Your task to perform on an android device: open a bookmark in the chrome app Image 0: 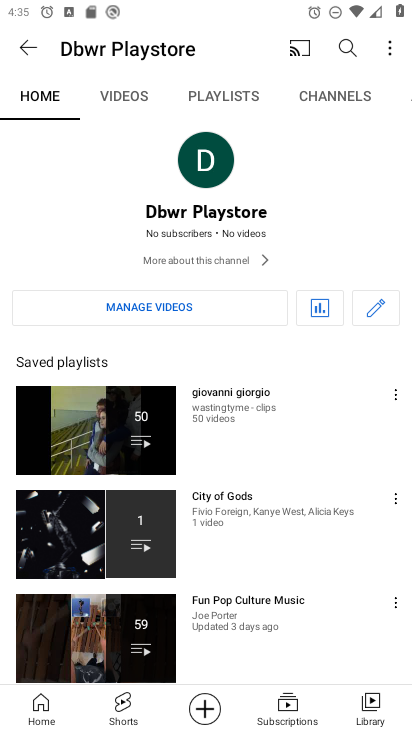
Step 0: press home button
Your task to perform on an android device: open a bookmark in the chrome app Image 1: 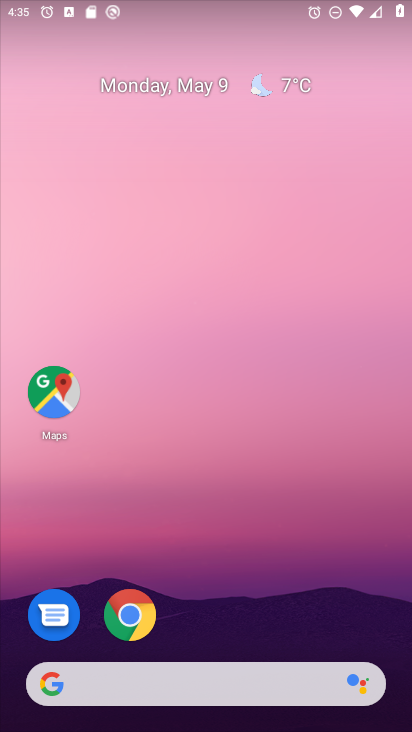
Step 1: click (129, 613)
Your task to perform on an android device: open a bookmark in the chrome app Image 2: 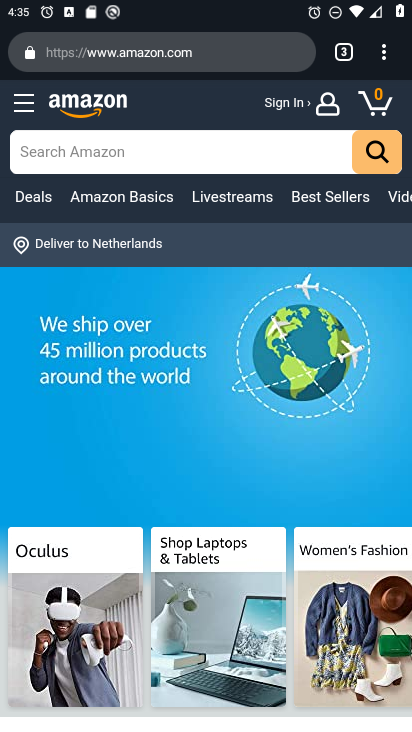
Step 2: click (381, 57)
Your task to perform on an android device: open a bookmark in the chrome app Image 3: 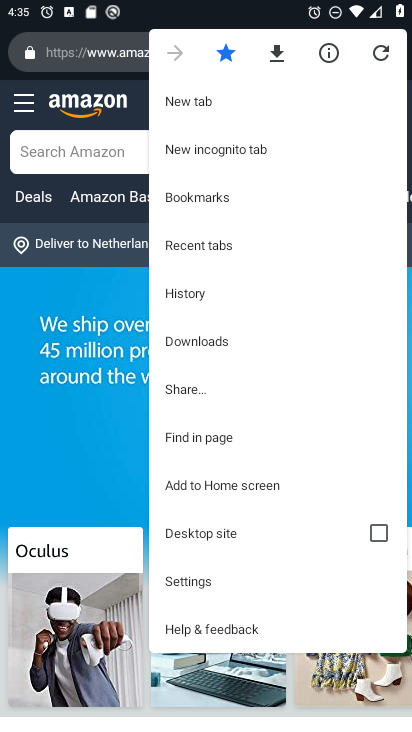
Step 3: click (187, 195)
Your task to perform on an android device: open a bookmark in the chrome app Image 4: 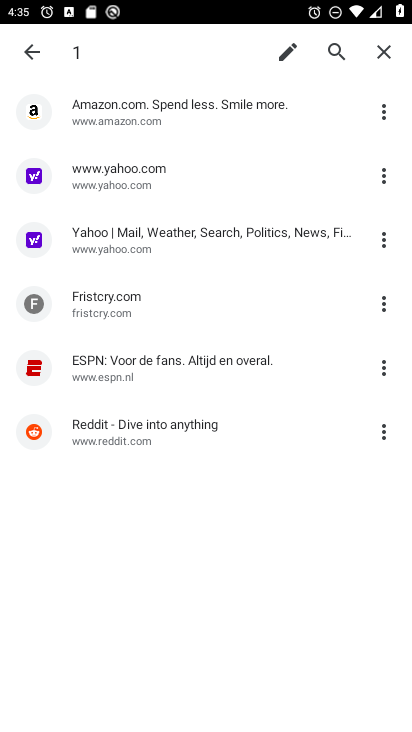
Step 4: task complete